Your task to perform on an android device: check out phone information Image 0: 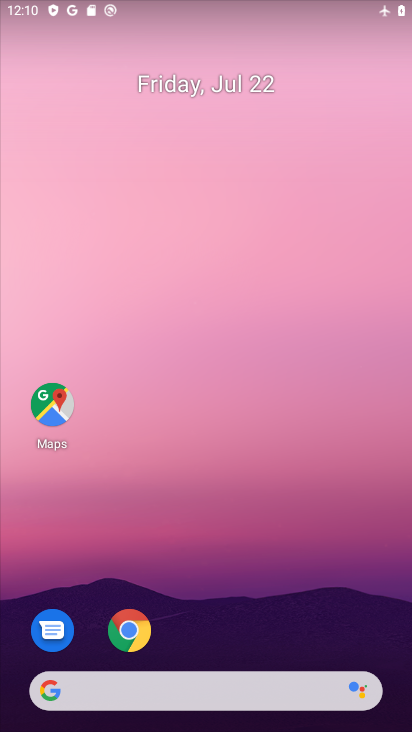
Step 0: drag from (198, 673) to (196, 109)
Your task to perform on an android device: check out phone information Image 1: 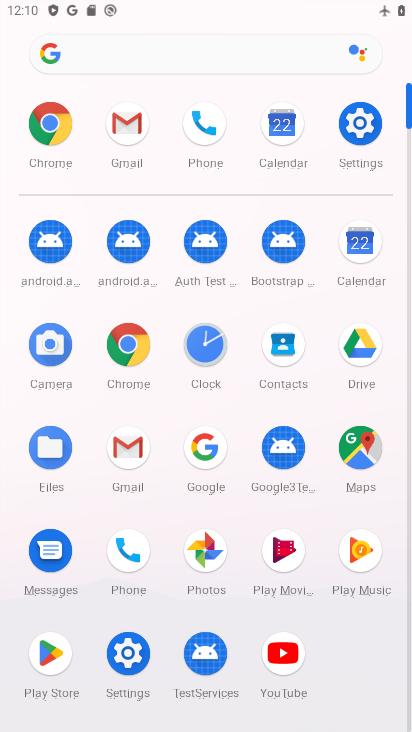
Step 1: click (119, 654)
Your task to perform on an android device: check out phone information Image 2: 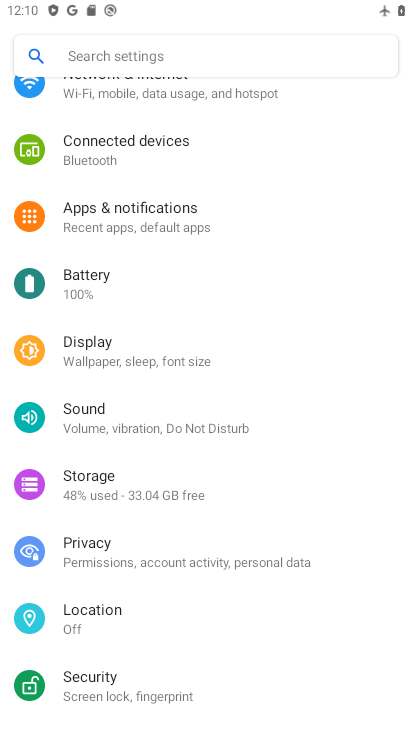
Step 2: drag from (164, 610) to (133, 347)
Your task to perform on an android device: check out phone information Image 3: 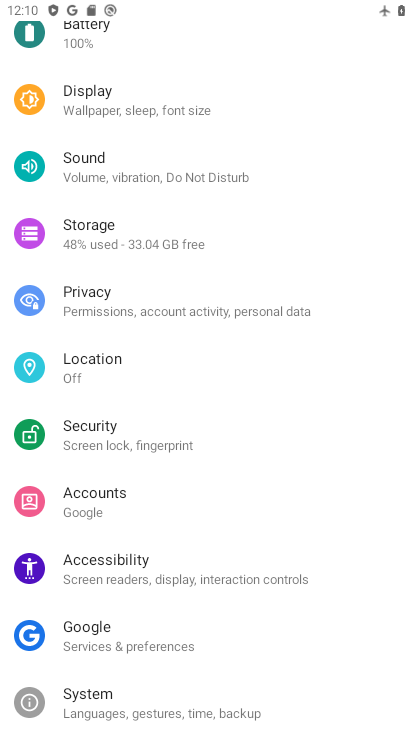
Step 3: click (129, 715)
Your task to perform on an android device: check out phone information Image 4: 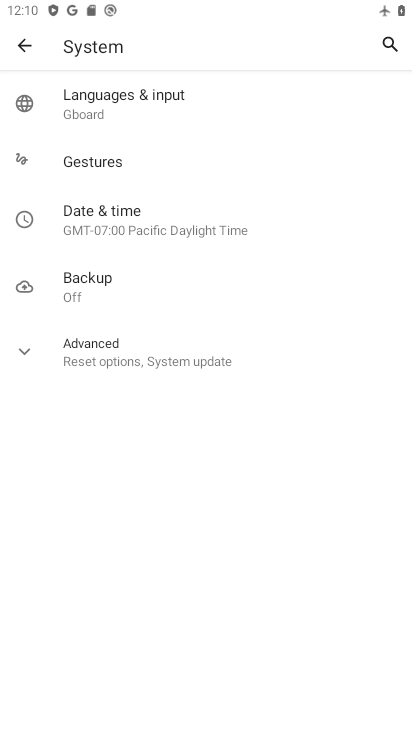
Step 4: click (19, 45)
Your task to perform on an android device: check out phone information Image 5: 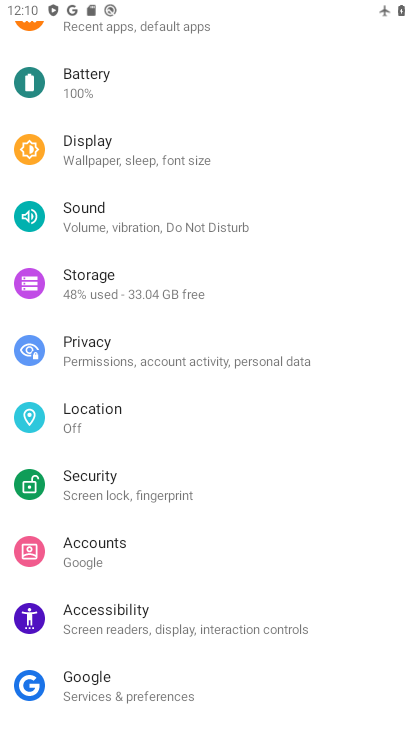
Step 5: drag from (189, 205) to (145, 555)
Your task to perform on an android device: check out phone information Image 6: 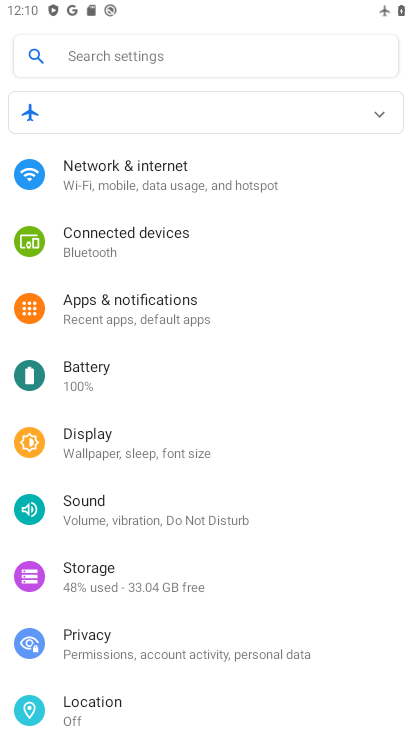
Step 6: drag from (156, 228) to (136, 631)
Your task to perform on an android device: check out phone information Image 7: 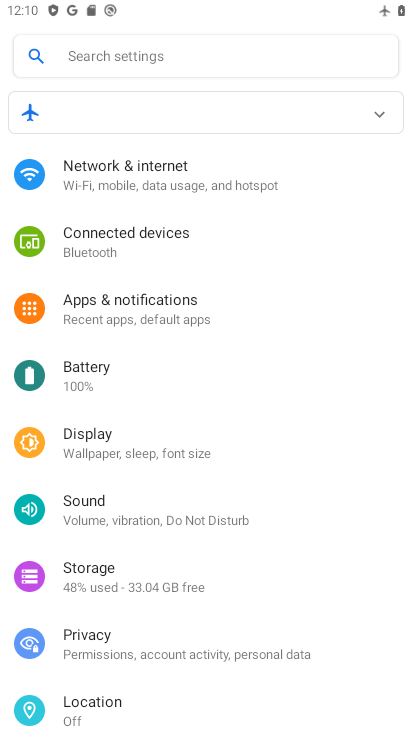
Step 7: drag from (222, 519) to (205, 288)
Your task to perform on an android device: check out phone information Image 8: 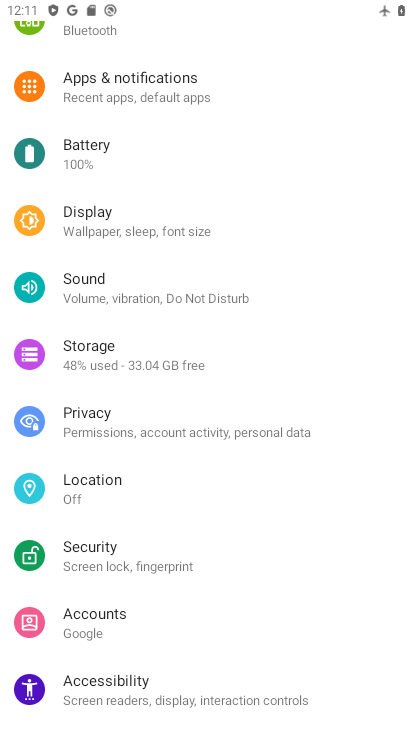
Step 8: drag from (224, 579) to (211, 158)
Your task to perform on an android device: check out phone information Image 9: 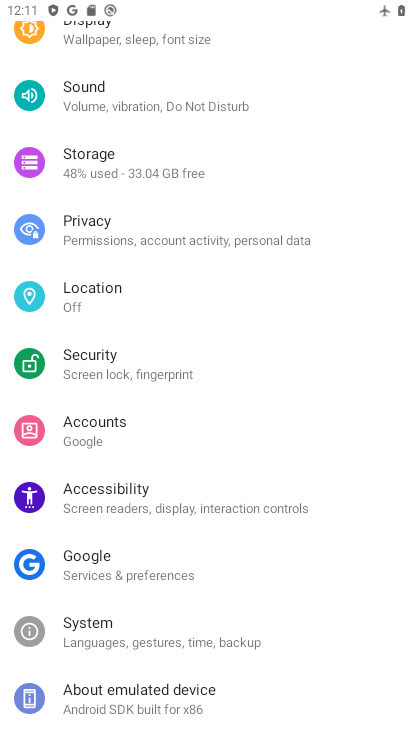
Step 9: click (110, 716)
Your task to perform on an android device: check out phone information Image 10: 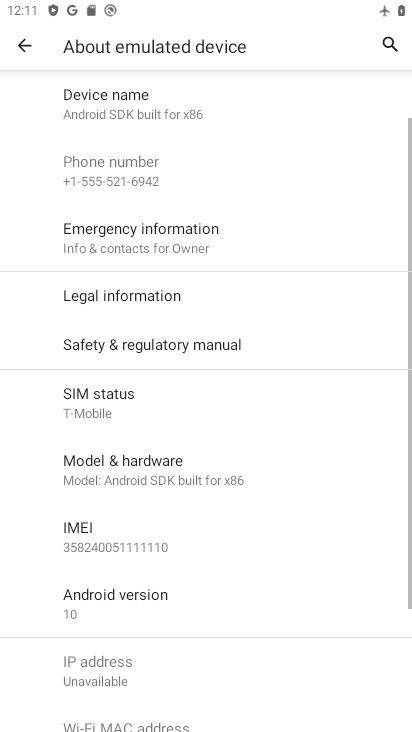
Step 10: task complete